Your task to perform on an android device: Open my contact list Image 0: 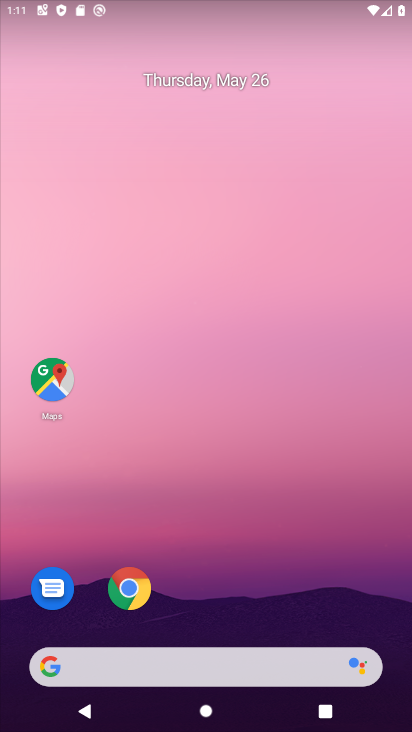
Step 0: drag from (388, 638) to (339, 175)
Your task to perform on an android device: Open my contact list Image 1: 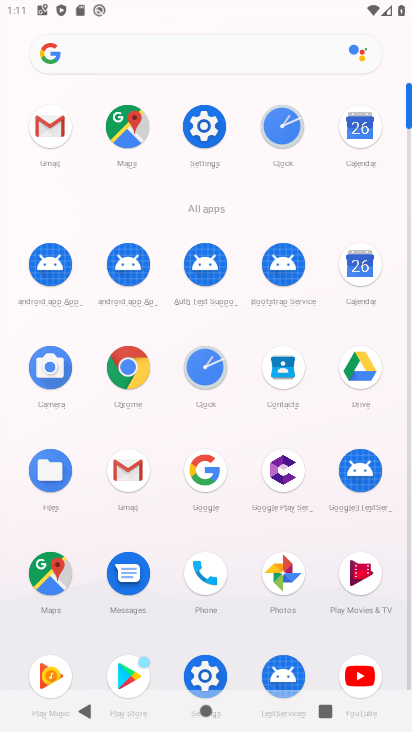
Step 1: click (281, 369)
Your task to perform on an android device: Open my contact list Image 2: 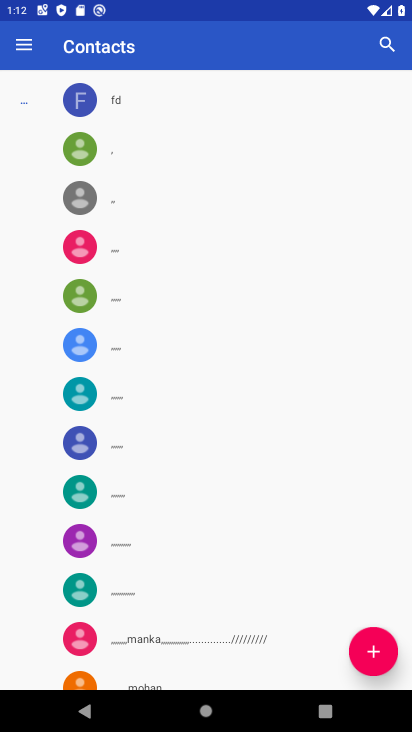
Step 2: task complete